Your task to perform on an android device: turn on javascript in the chrome app Image 0: 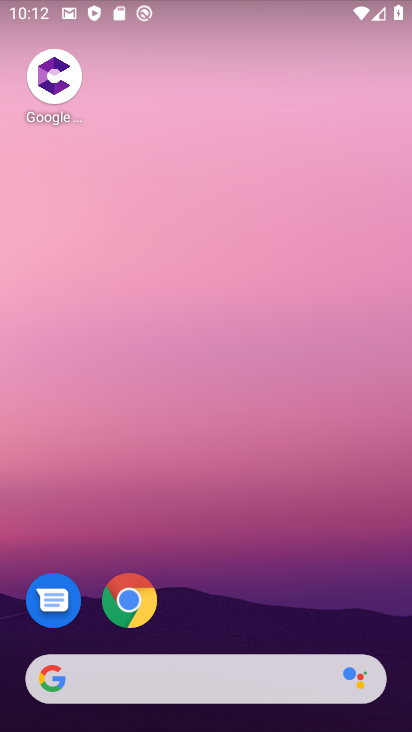
Step 0: drag from (235, 548) to (232, 37)
Your task to perform on an android device: turn on javascript in the chrome app Image 1: 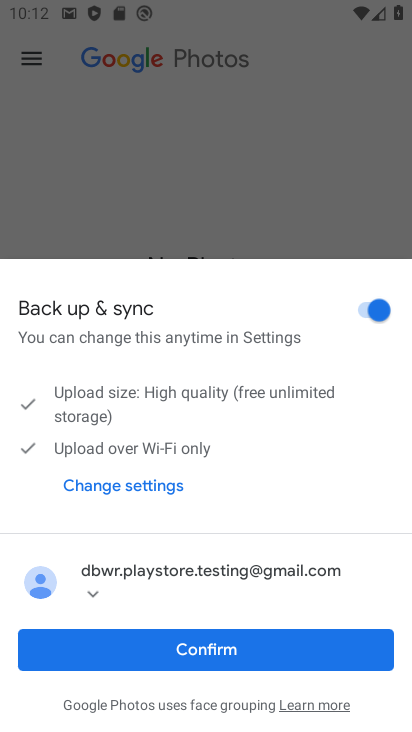
Step 1: click (161, 650)
Your task to perform on an android device: turn on javascript in the chrome app Image 2: 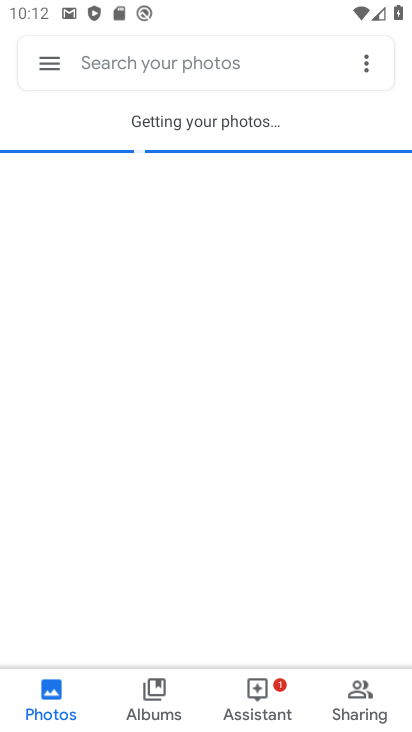
Step 2: press back button
Your task to perform on an android device: turn on javascript in the chrome app Image 3: 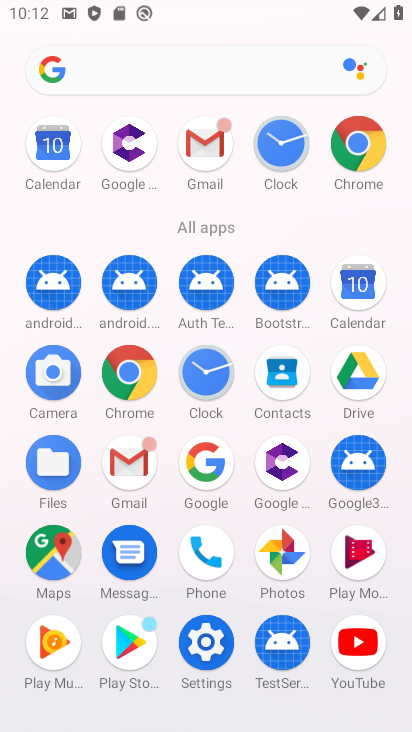
Step 3: press back button
Your task to perform on an android device: turn on javascript in the chrome app Image 4: 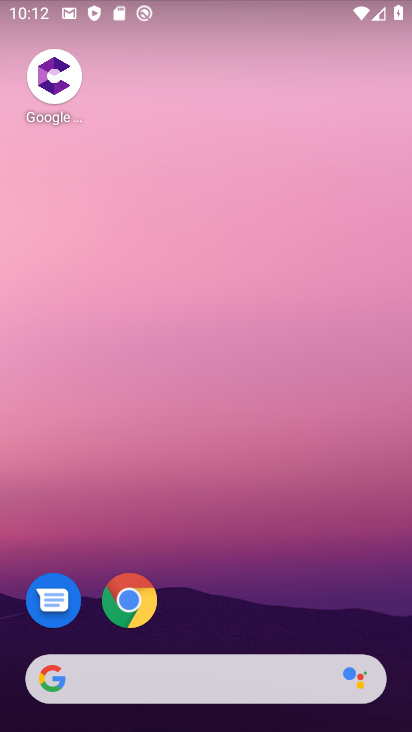
Step 4: drag from (272, 581) to (187, 30)
Your task to perform on an android device: turn on javascript in the chrome app Image 5: 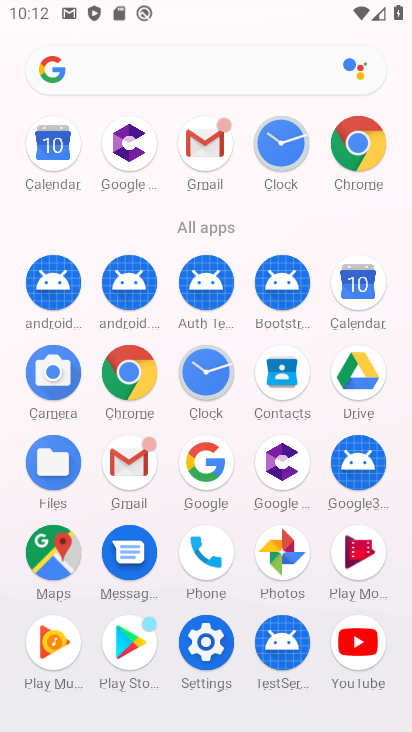
Step 5: click (356, 138)
Your task to perform on an android device: turn on javascript in the chrome app Image 6: 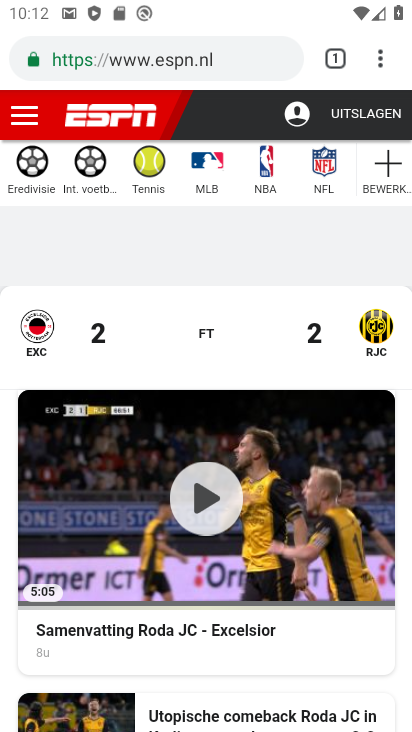
Step 6: drag from (375, 58) to (172, 627)
Your task to perform on an android device: turn on javascript in the chrome app Image 7: 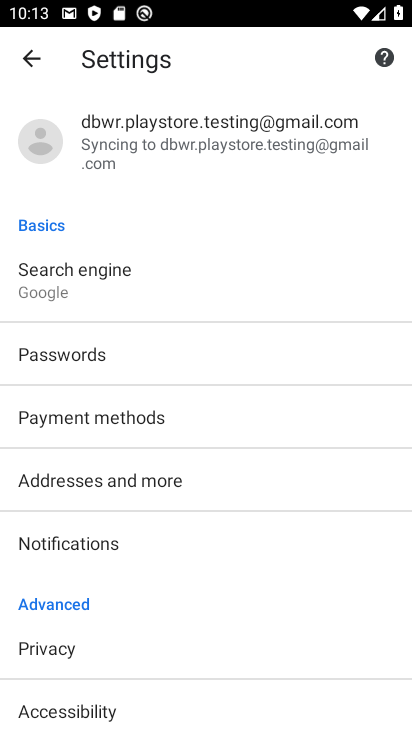
Step 7: drag from (202, 628) to (232, 217)
Your task to perform on an android device: turn on javascript in the chrome app Image 8: 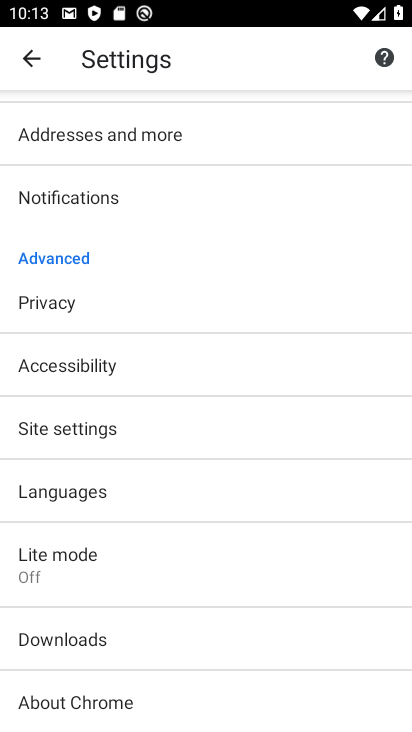
Step 8: click (78, 426)
Your task to perform on an android device: turn on javascript in the chrome app Image 9: 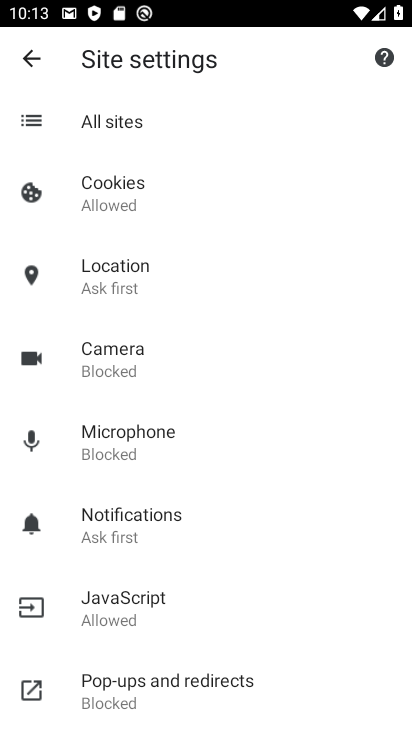
Step 9: drag from (254, 580) to (255, 159)
Your task to perform on an android device: turn on javascript in the chrome app Image 10: 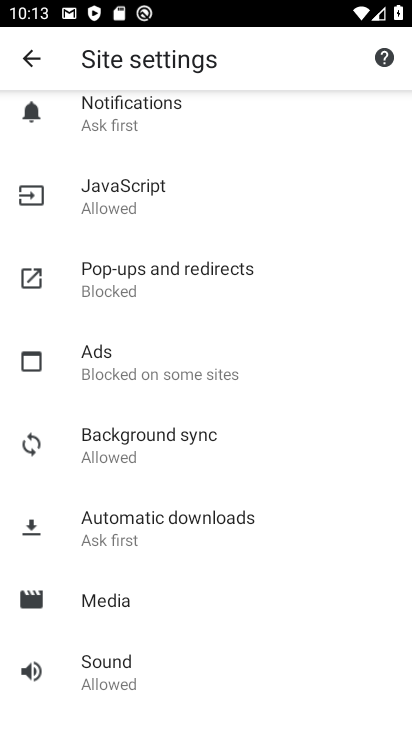
Step 10: click (132, 196)
Your task to perform on an android device: turn on javascript in the chrome app Image 11: 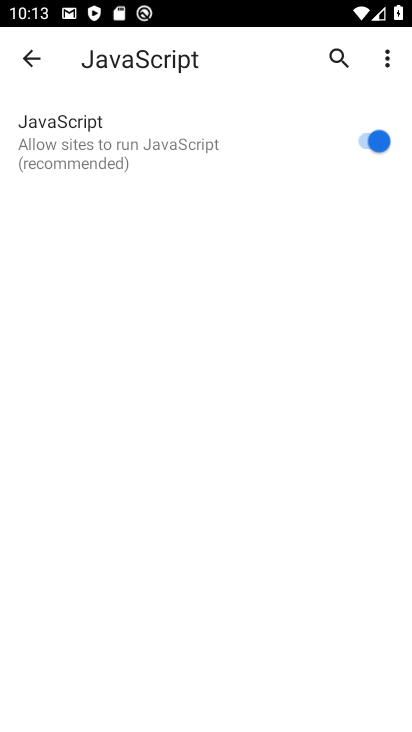
Step 11: task complete